Your task to perform on an android device: Open settings Image 0: 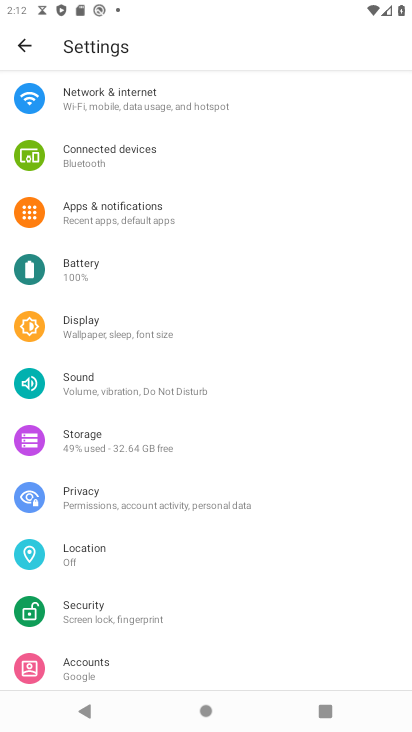
Step 0: drag from (165, 596) to (167, 264)
Your task to perform on an android device: Open settings Image 1: 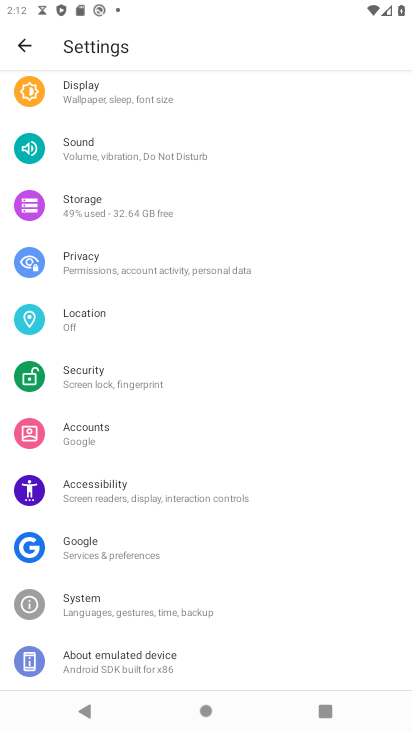
Step 1: task complete